Your task to perform on an android device: Check the weather Image 0: 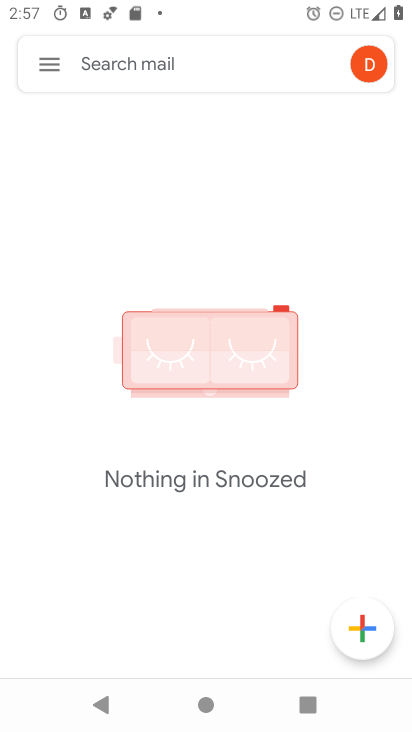
Step 0: press home button
Your task to perform on an android device: Check the weather Image 1: 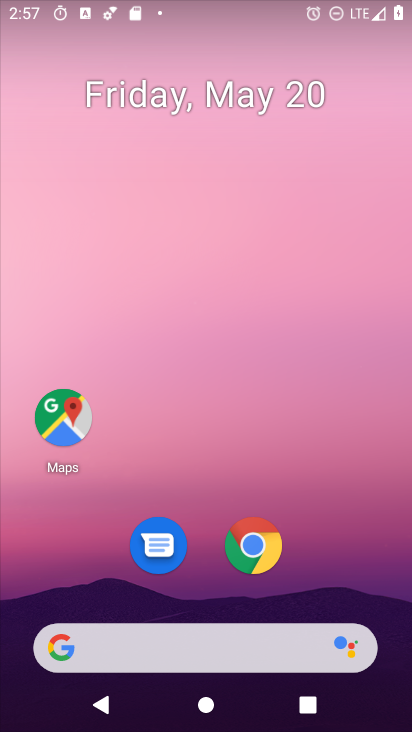
Step 1: drag from (293, 628) to (328, 95)
Your task to perform on an android device: Check the weather Image 2: 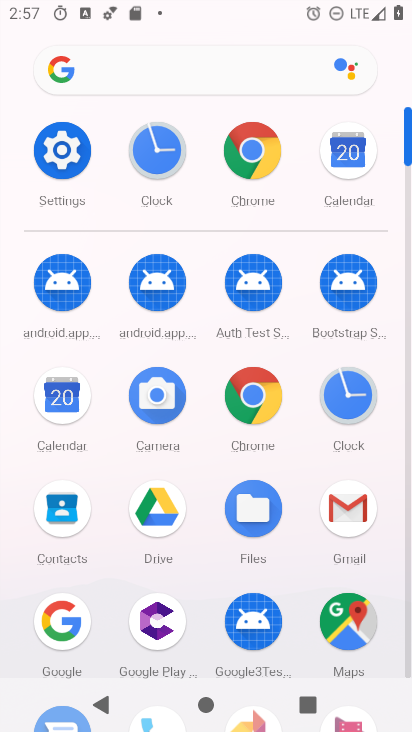
Step 2: click (264, 400)
Your task to perform on an android device: Check the weather Image 3: 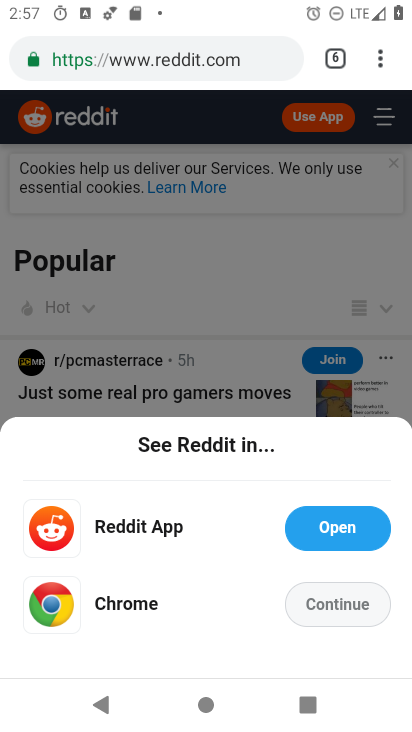
Step 3: press home button
Your task to perform on an android device: Check the weather Image 4: 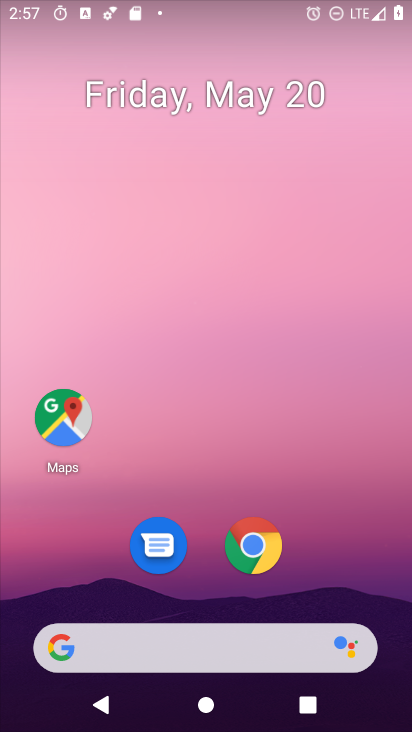
Step 4: drag from (24, 345) to (411, 343)
Your task to perform on an android device: Check the weather Image 5: 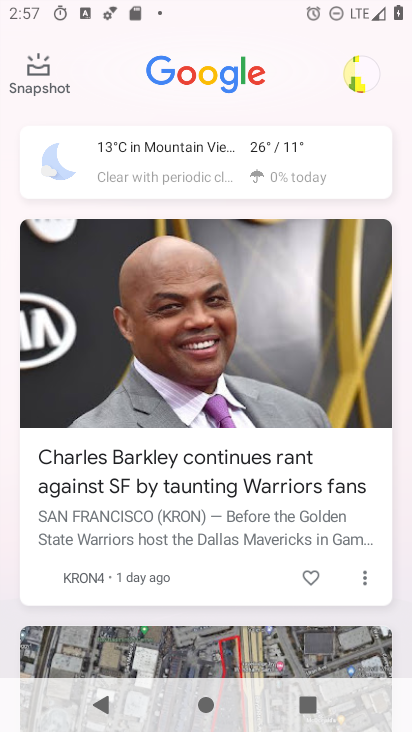
Step 5: click (220, 153)
Your task to perform on an android device: Check the weather Image 6: 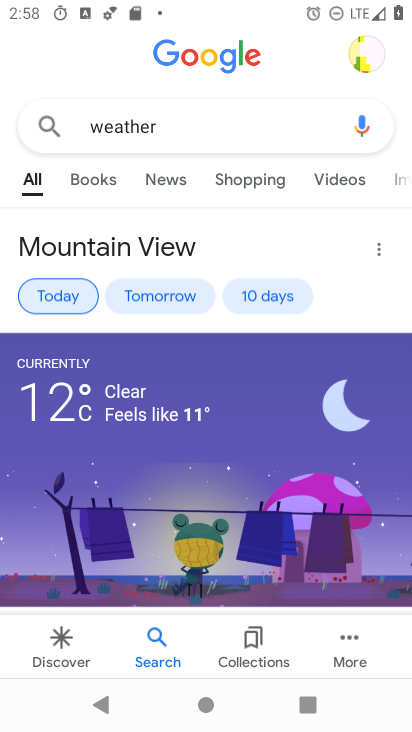
Step 6: task complete